Your task to perform on an android device: Open my contact list Image 0: 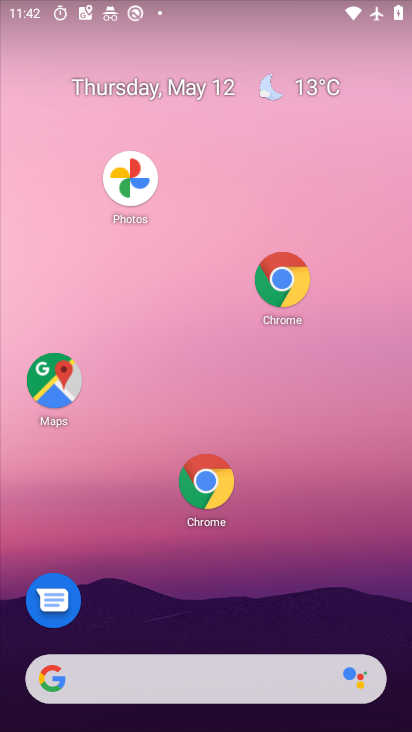
Step 0: drag from (332, 610) to (155, 147)
Your task to perform on an android device: Open my contact list Image 1: 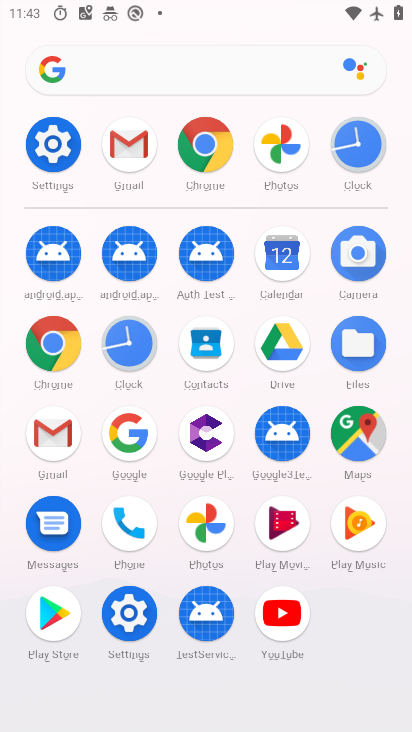
Step 1: click (206, 368)
Your task to perform on an android device: Open my contact list Image 2: 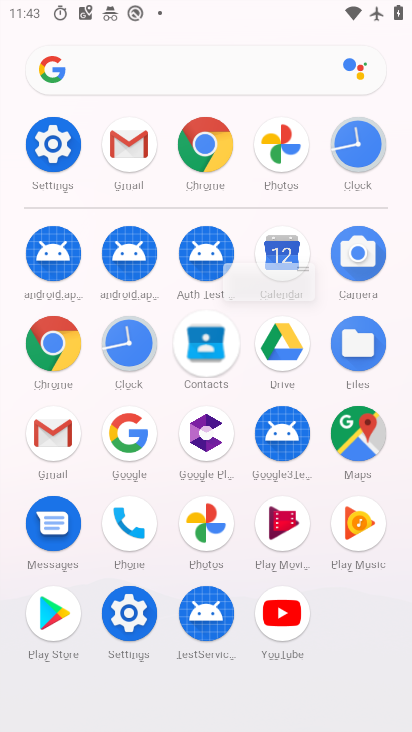
Step 2: click (206, 368)
Your task to perform on an android device: Open my contact list Image 3: 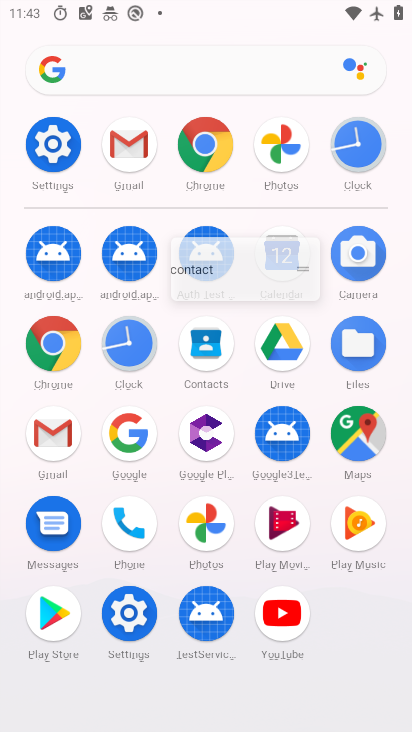
Step 3: click (214, 361)
Your task to perform on an android device: Open my contact list Image 4: 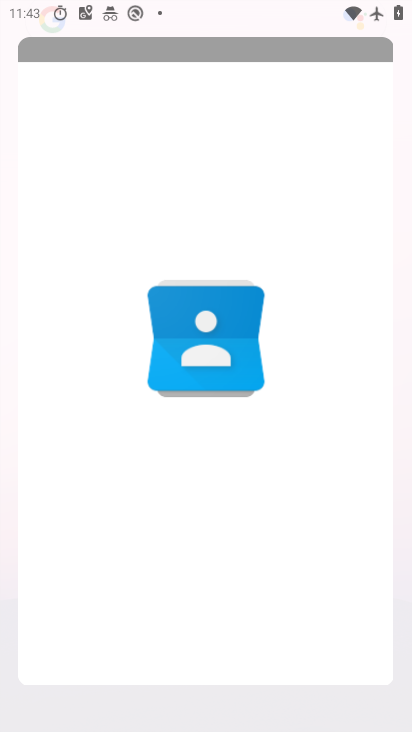
Step 4: click (214, 361)
Your task to perform on an android device: Open my contact list Image 5: 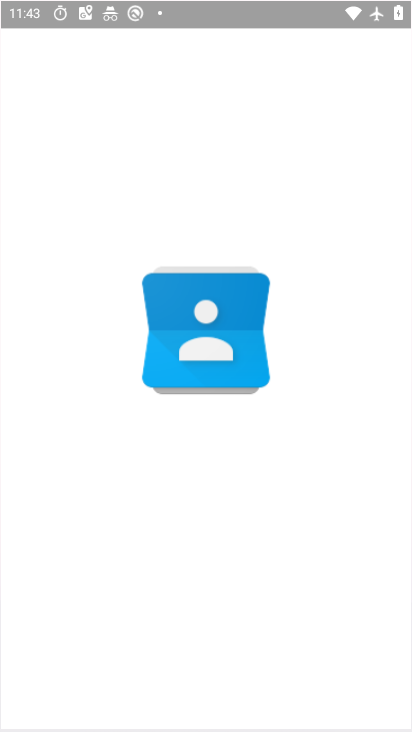
Step 5: click (214, 361)
Your task to perform on an android device: Open my contact list Image 6: 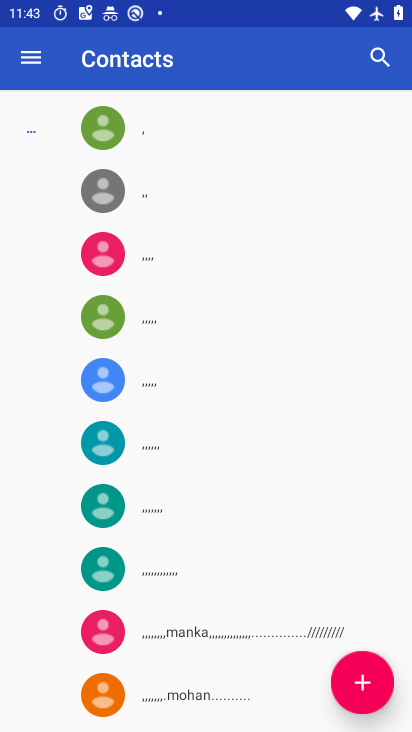
Step 6: task complete